Your task to perform on an android device: turn off sleep mode Image 0: 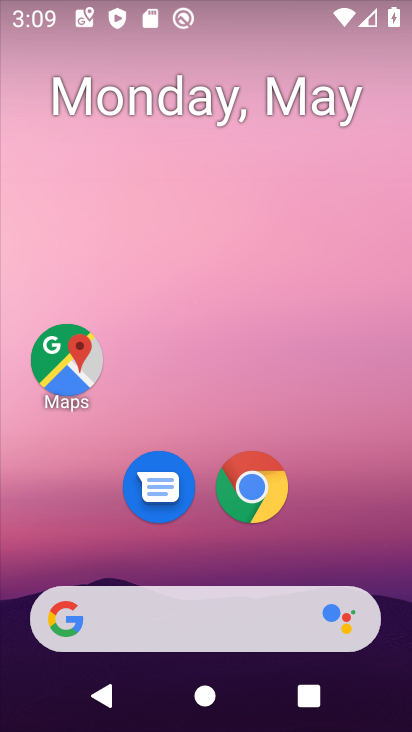
Step 0: drag from (404, 526) to (220, 123)
Your task to perform on an android device: turn off sleep mode Image 1: 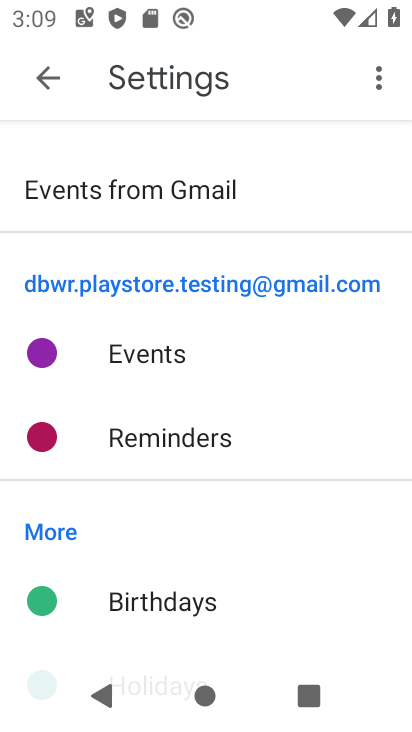
Step 1: press home button
Your task to perform on an android device: turn off sleep mode Image 2: 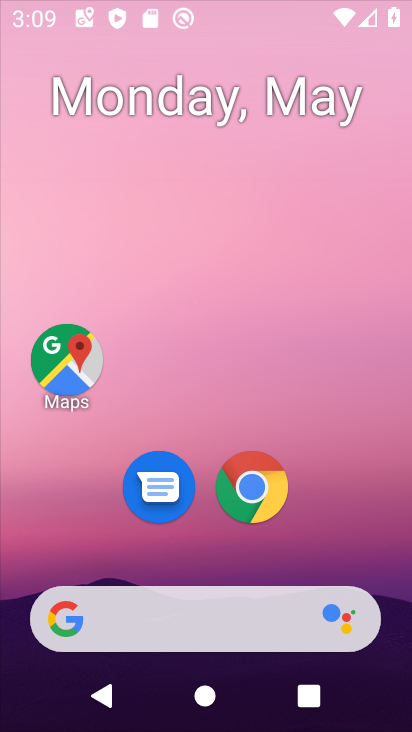
Step 2: drag from (203, 600) to (269, 109)
Your task to perform on an android device: turn off sleep mode Image 3: 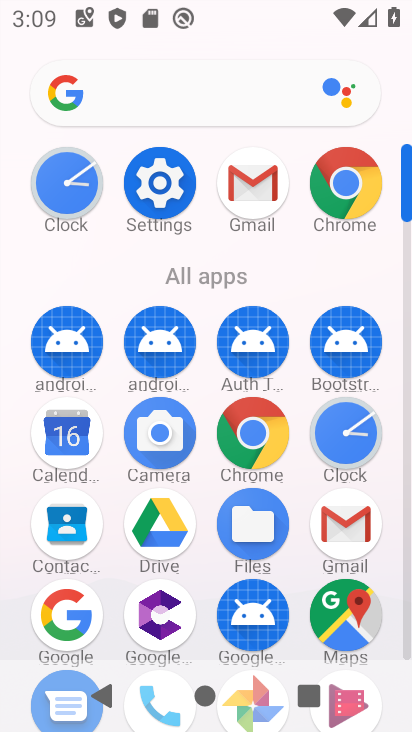
Step 3: click (170, 186)
Your task to perform on an android device: turn off sleep mode Image 4: 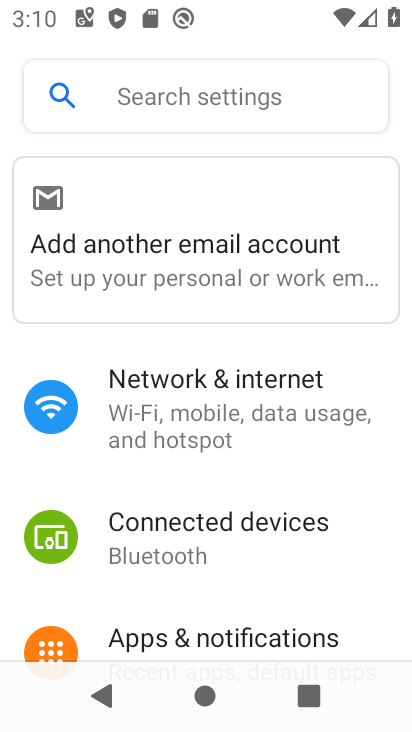
Step 4: drag from (202, 488) to (241, 113)
Your task to perform on an android device: turn off sleep mode Image 5: 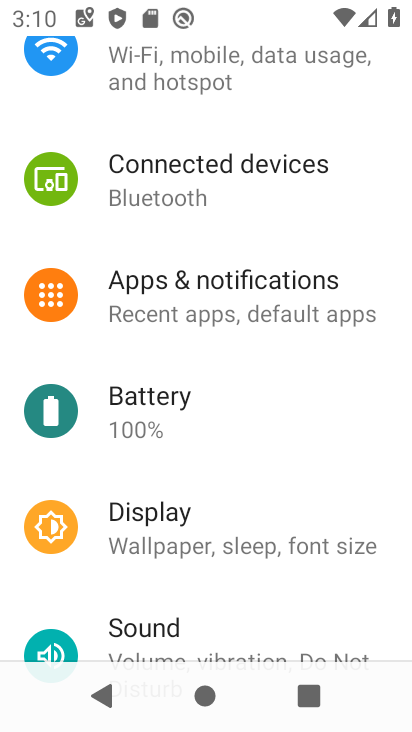
Step 5: drag from (233, 465) to (309, 142)
Your task to perform on an android device: turn off sleep mode Image 6: 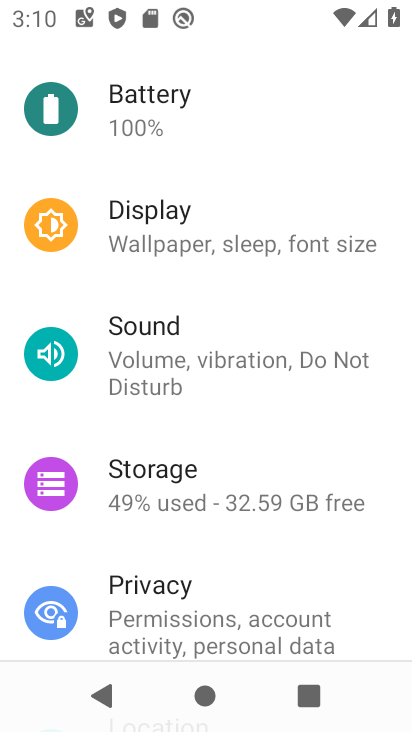
Step 6: drag from (192, 162) to (297, 621)
Your task to perform on an android device: turn off sleep mode Image 7: 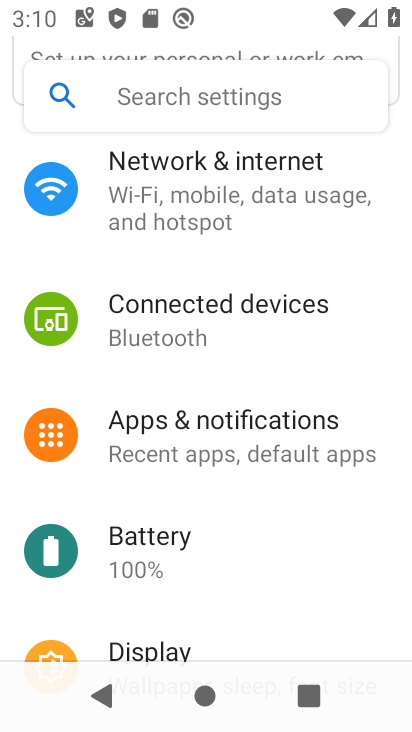
Step 7: drag from (223, 239) to (302, 568)
Your task to perform on an android device: turn off sleep mode Image 8: 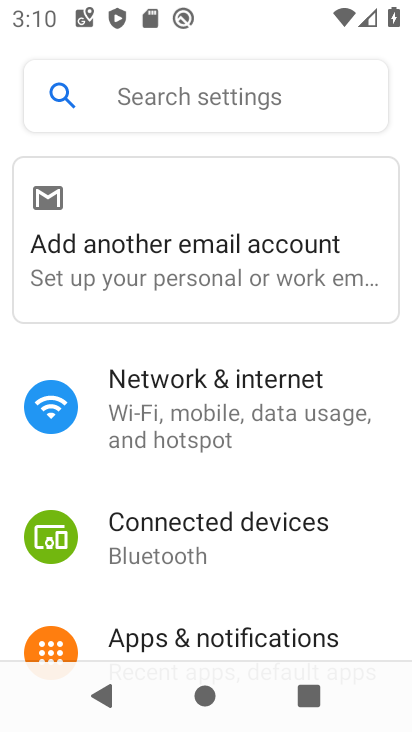
Step 8: drag from (222, 522) to (272, 80)
Your task to perform on an android device: turn off sleep mode Image 9: 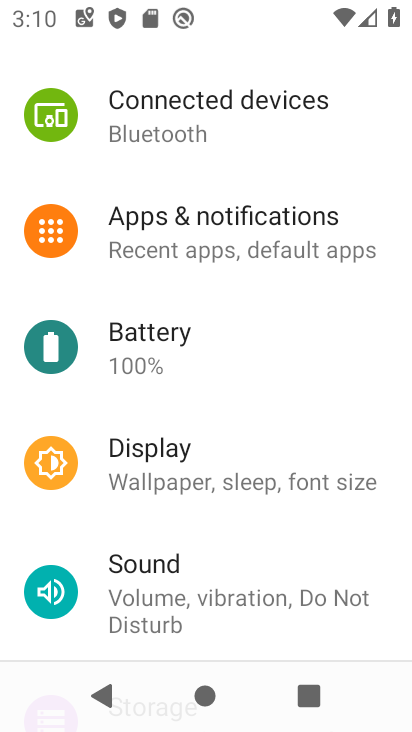
Step 9: drag from (202, 568) to (222, 145)
Your task to perform on an android device: turn off sleep mode Image 10: 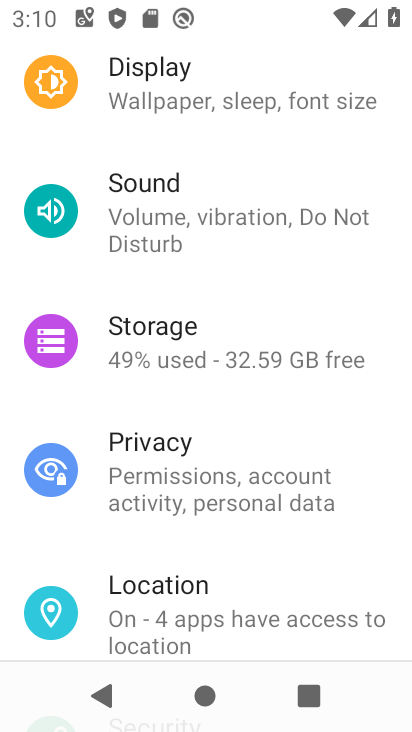
Step 10: drag from (219, 576) to (246, 174)
Your task to perform on an android device: turn off sleep mode Image 11: 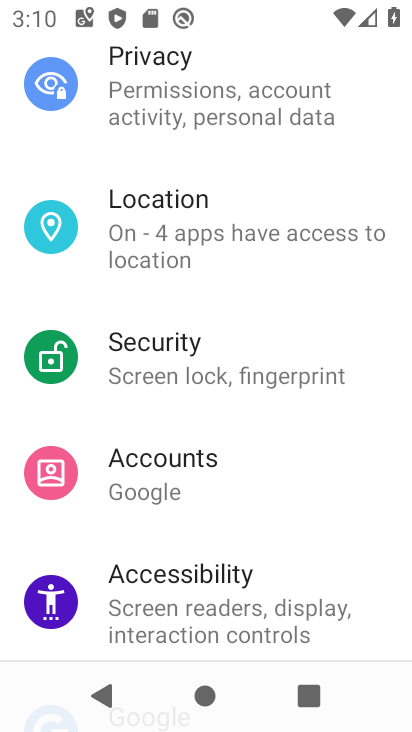
Step 11: drag from (217, 141) to (352, 645)
Your task to perform on an android device: turn off sleep mode Image 12: 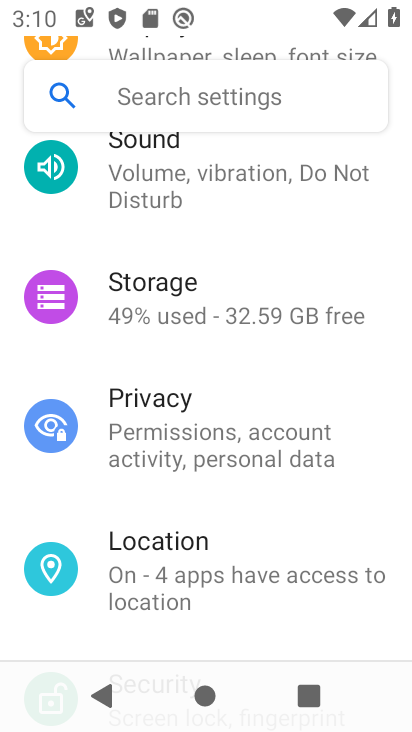
Step 12: drag from (186, 280) to (318, 556)
Your task to perform on an android device: turn off sleep mode Image 13: 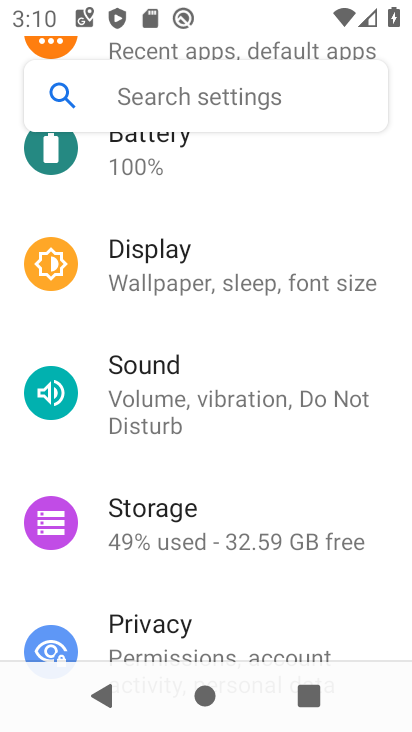
Step 13: click (169, 264)
Your task to perform on an android device: turn off sleep mode Image 14: 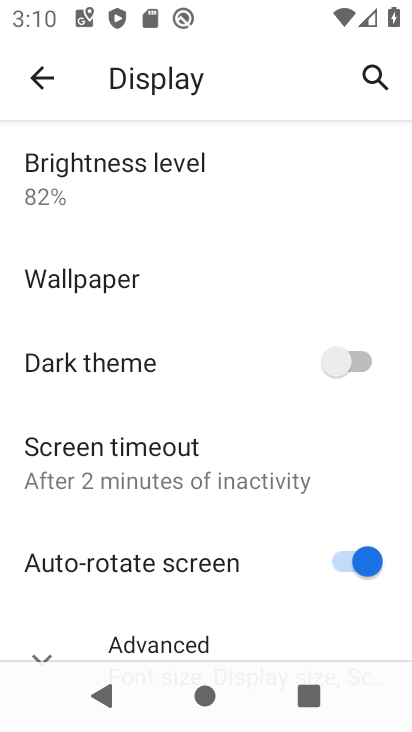
Step 14: drag from (198, 511) to (276, 166)
Your task to perform on an android device: turn off sleep mode Image 15: 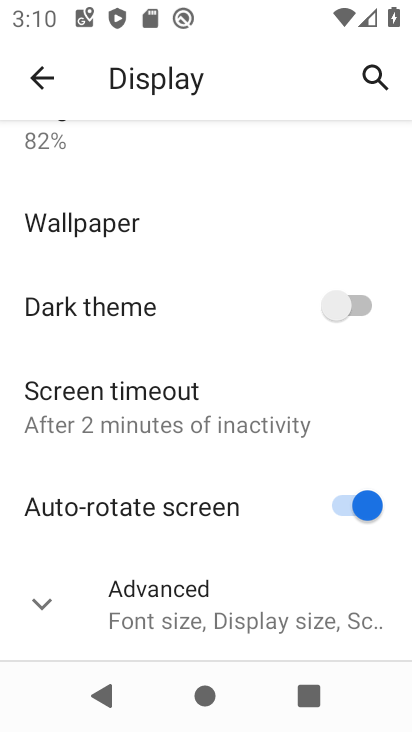
Step 15: drag from (259, 144) to (267, 562)
Your task to perform on an android device: turn off sleep mode Image 16: 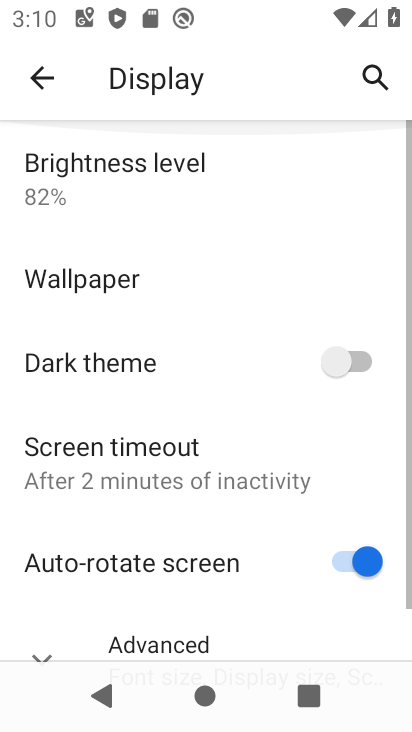
Step 16: drag from (266, 554) to (277, 146)
Your task to perform on an android device: turn off sleep mode Image 17: 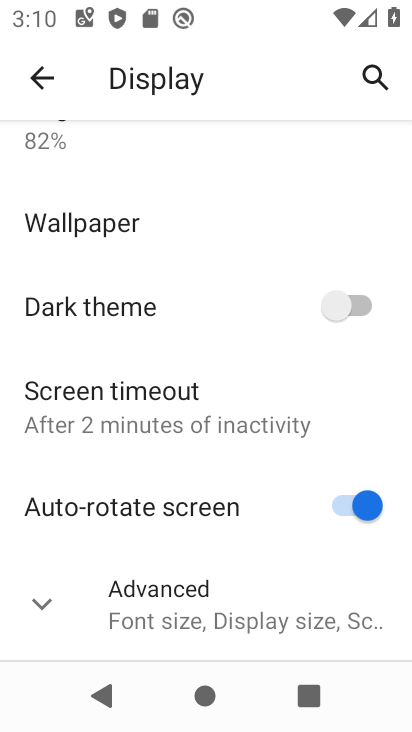
Step 17: drag from (183, 213) to (315, 532)
Your task to perform on an android device: turn off sleep mode Image 18: 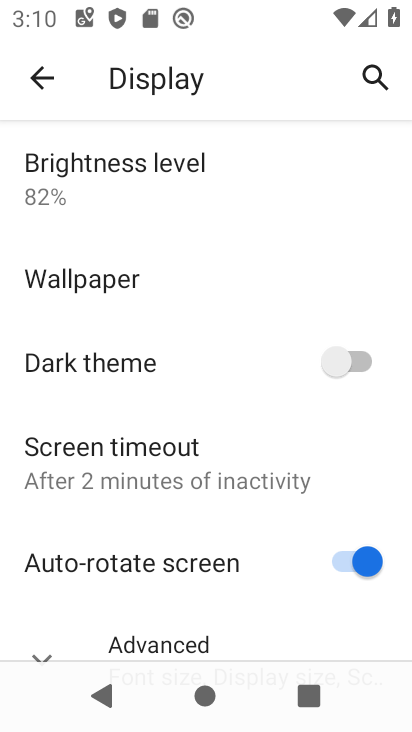
Step 18: drag from (224, 171) to (333, 681)
Your task to perform on an android device: turn off sleep mode Image 19: 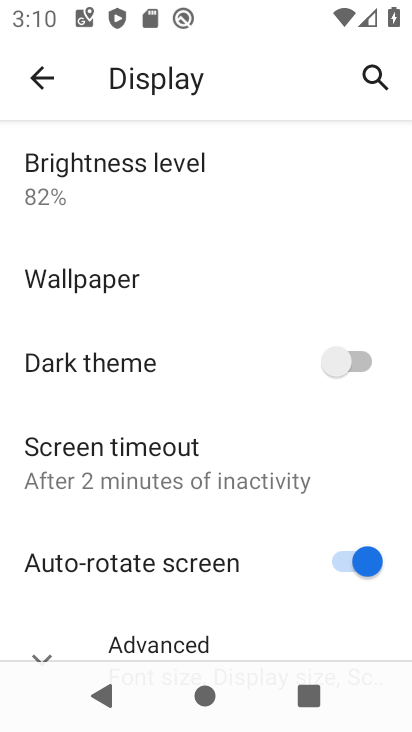
Step 19: click (186, 449)
Your task to perform on an android device: turn off sleep mode Image 20: 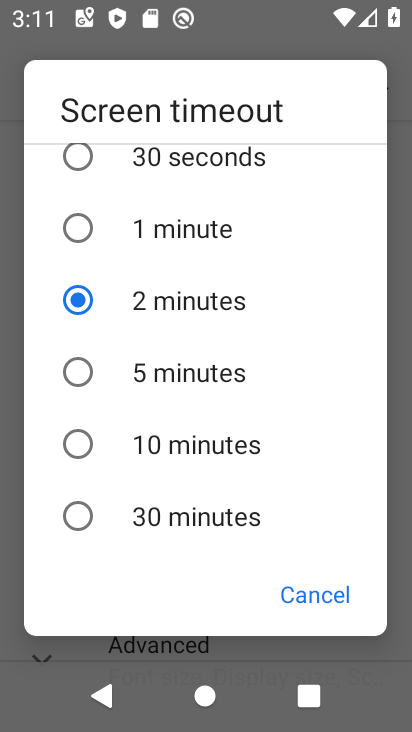
Step 20: task complete